Your task to perform on an android device: clear all cookies in the chrome app Image 0: 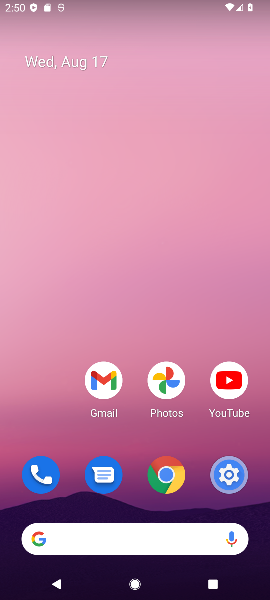
Step 0: click (159, 481)
Your task to perform on an android device: clear all cookies in the chrome app Image 1: 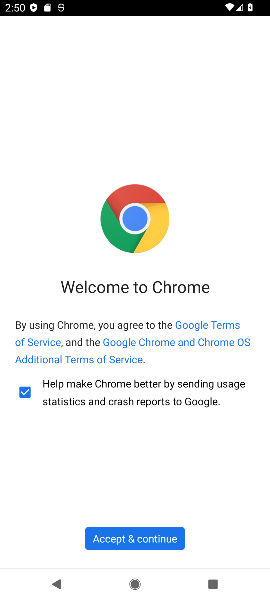
Step 1: click (137, 541)
Your task to perform on an android device: clear all cookies in the chrome app Image 2: 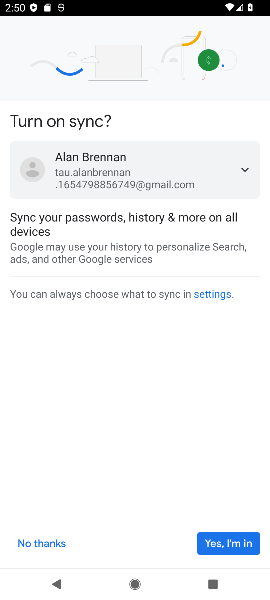
Step 2: click (230, 547)
Your task to perform on an android device: clear all cookies in the chrome app Image 3: 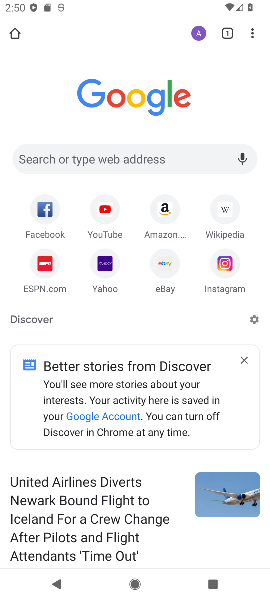
Step 3: click (255, 32)
Your task to perform on an android device: clear all cookies in the chrome app Image 4: 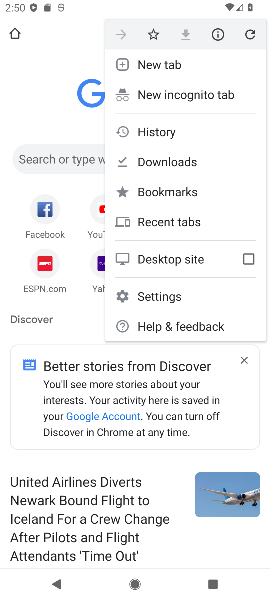
Step 4: click (146, 300)
Your task to perform on an android device: clear all cookies in the chrome app Image 5: 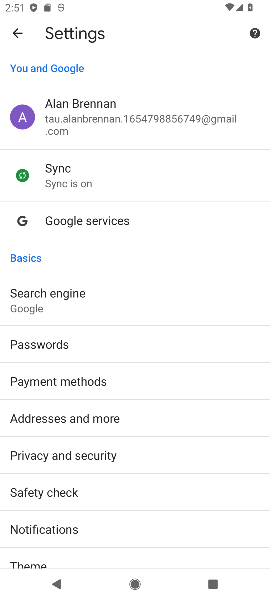
Step 5: click (55, 462)
Your task to perform on an android device: clear all cookies in the chrome app Image 6: 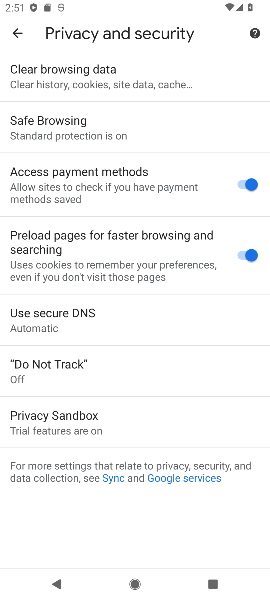
Step 6: click (81, 71)
Your task to perform on an android device: clear all cookies in the chrome app Image 7: 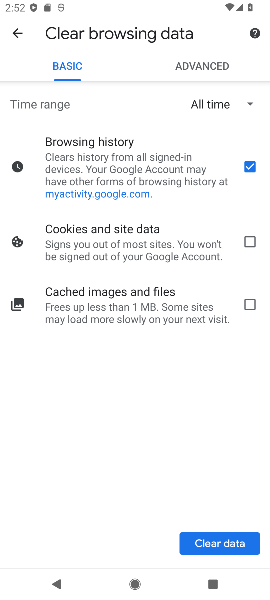
Step 7: click (186, 540)
Your task to perform on an android device: clear all cookies in the chrome app Image 8: 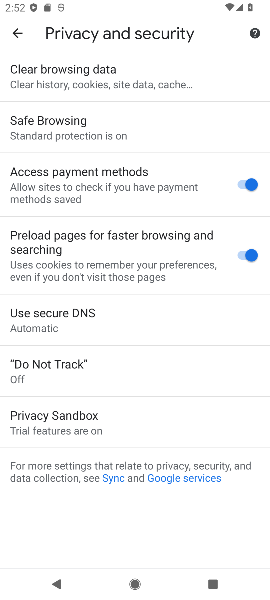
Step 8: task complete